Your task to perform on an android device: See recent photos Image 0: 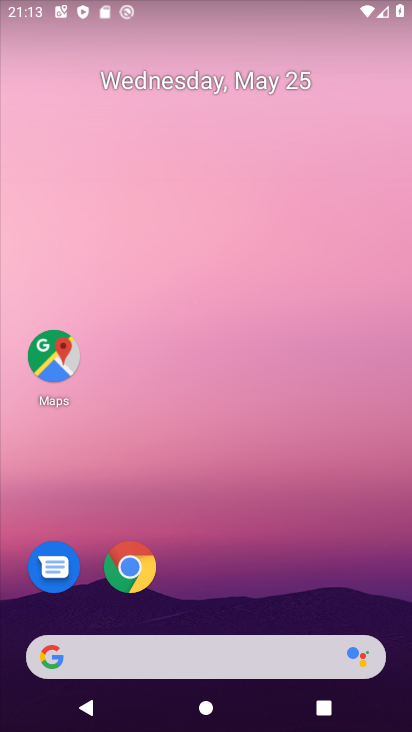
Step 0: drag from (266, 581) to (301, 83)
Your task to perform on an android device: See recent photos Image 1: 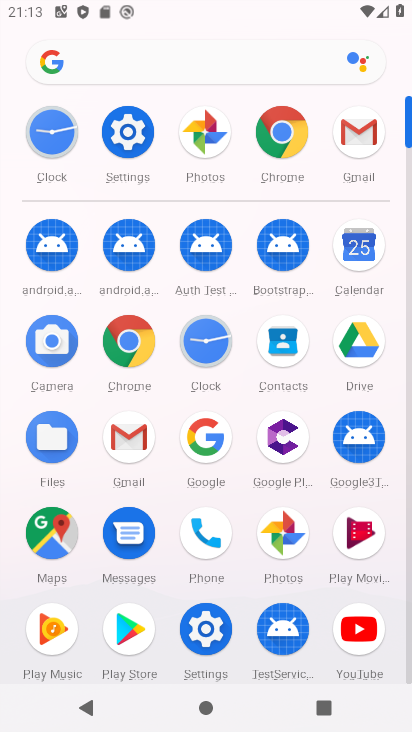
Step 1: click (194, 141)
Your task to perform on an android device: See recent photos Image 2: 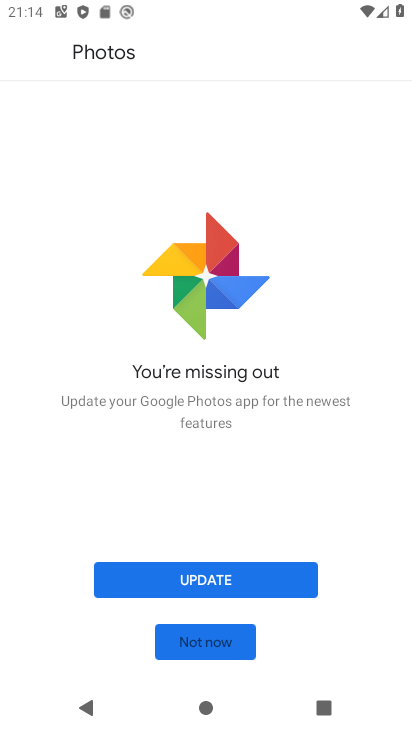
Step 2: click (201, 645)
Your task to perform on an android device: See recent photos Image 3: 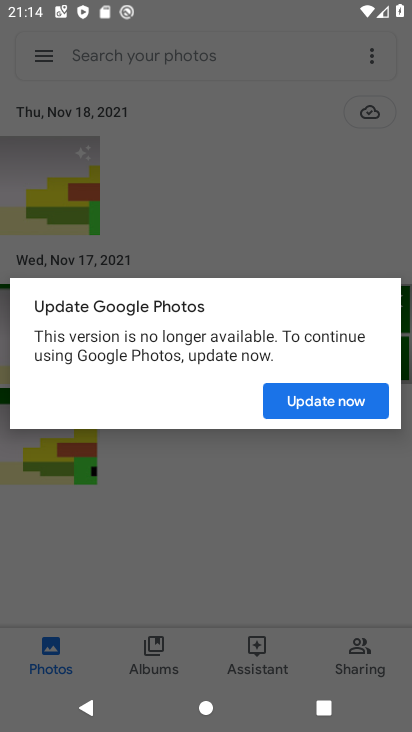
Step 3: click (348, 394)
Your task to perform on an android device: See recent photos Image 4: 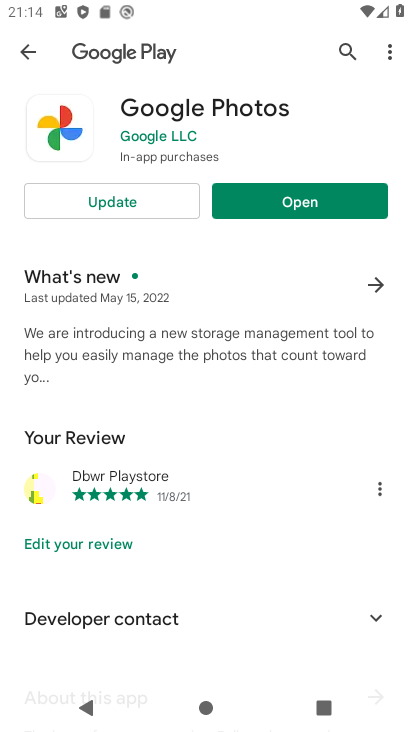
Step 4: click (283, 181)
Your task to perform on an android device: See recent photos Image 5: 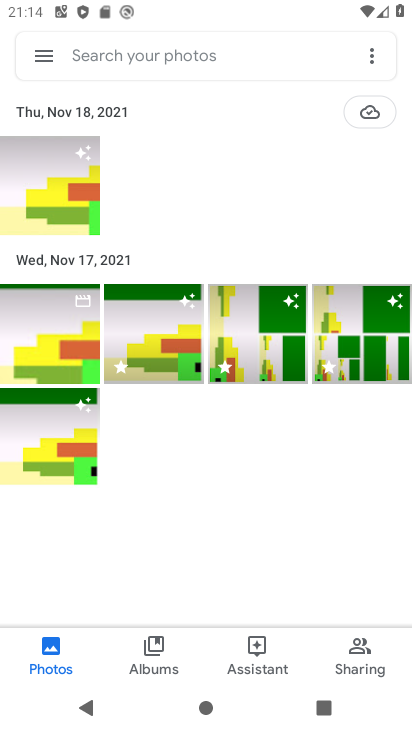
Step 5: task complete